Your task to perform on an android device: Show me recent news Image 0: 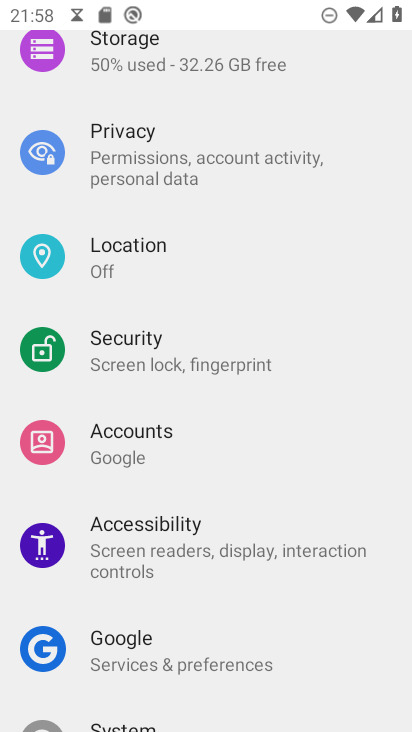
Step 0: press home button
Your task to perform on an android device: Show me recent news Image 1: 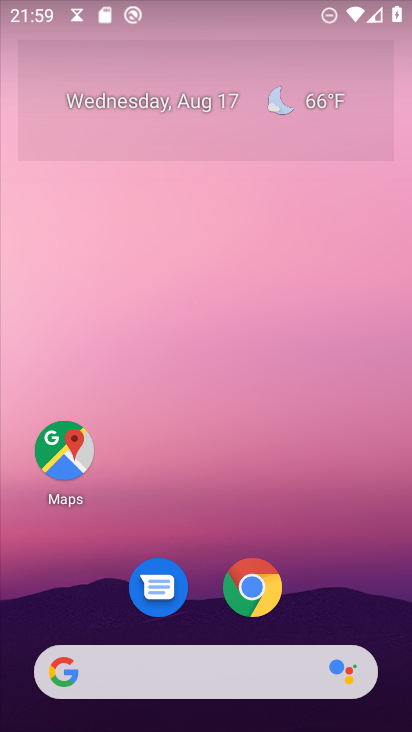
Step 1: click (115, 679)
Your task to perform on an android device: Show me recent news Image 2: 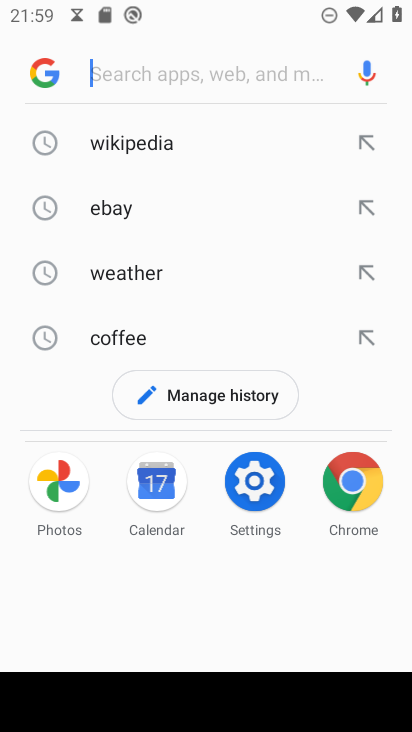
Step 2: type " recent news"
Your task to perform on an android device: Show me recent news Image 3: 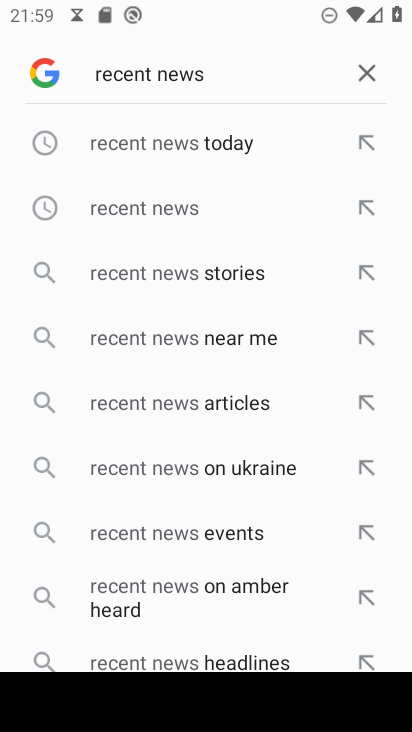
Step 3: type ""
Your task to perform on an android device: Show me recent news Image 4: 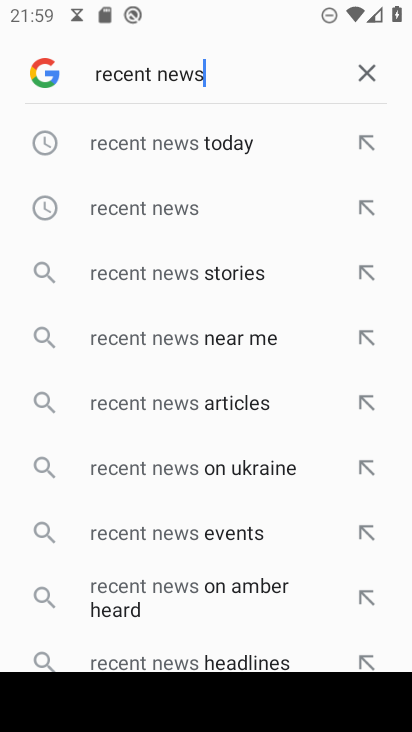
Step 4: type ""
Your task to perform on an android device: Show me recent news Image 5: 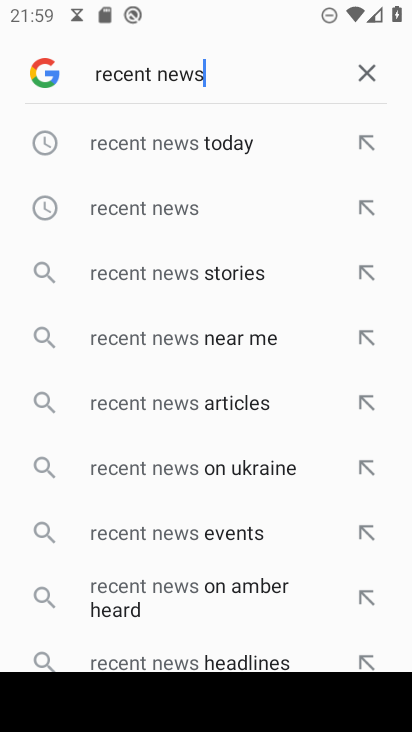
Step 5: task complete